Your task to perform on an android device: check the backup settings in the google photos Image 0: 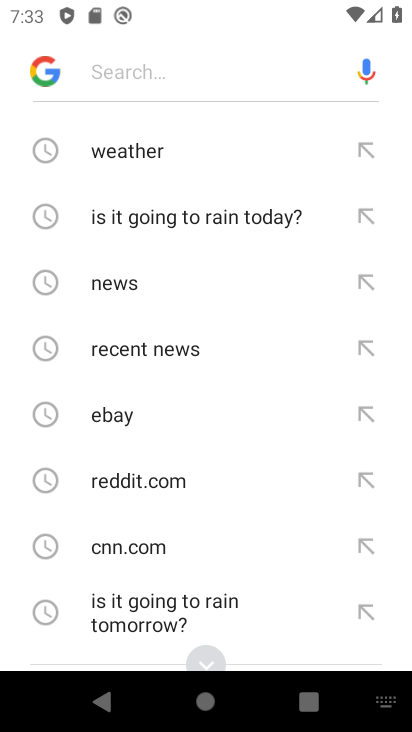
Step 0: press home button
Your task to perform on an android device: check the backup settings in the google photos Image 1: 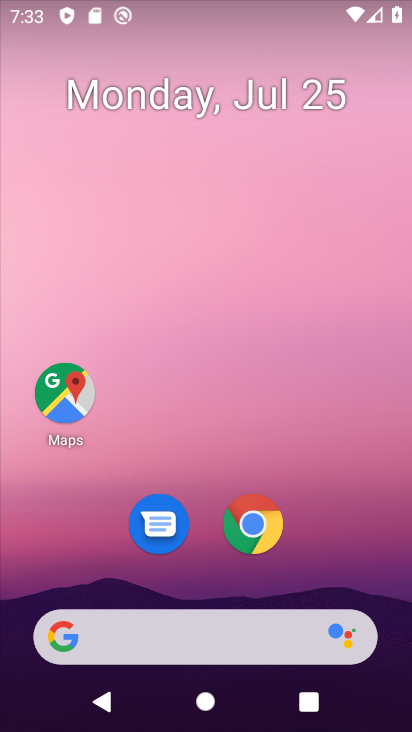
Step 1: drag from (309, 550) to (321, 18)
Your task to perform on an android device: check the backup settings in the google photos Image 2: 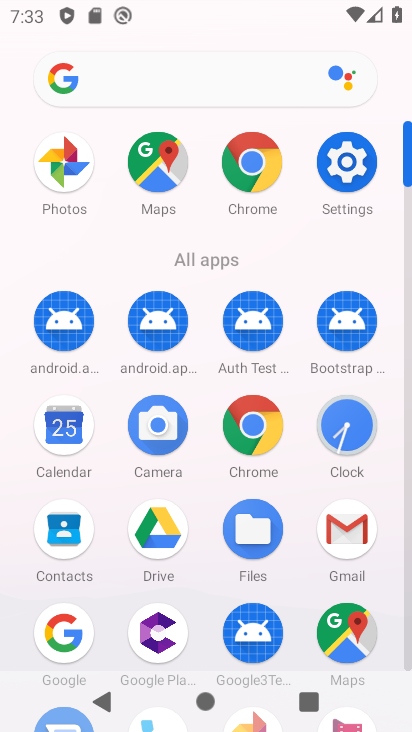
Step 2: click (71, 167)
Your task to perform on an android device: check the backup settings in the google photos Image 3: 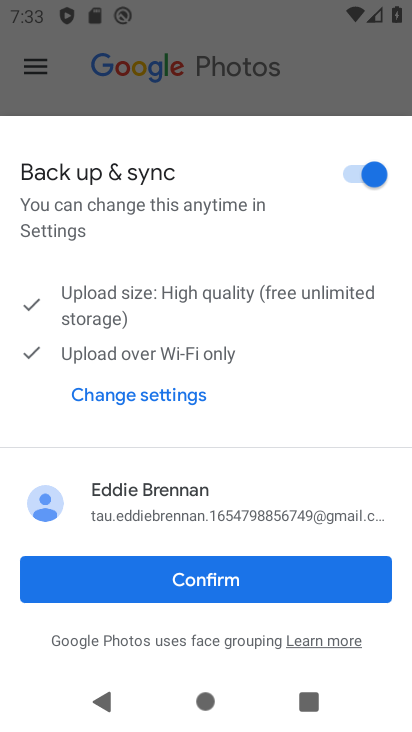
Step 3: click (263, 583)
Your task to perform on an android device: check the backup settings in the google photos Image 4: 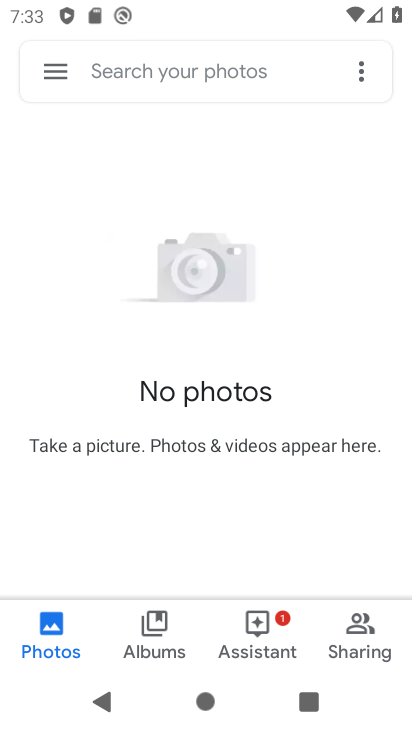
Step 4: click (57, 72)
Your task to perform on an android device: check the backup settings in the google photos Image 5: 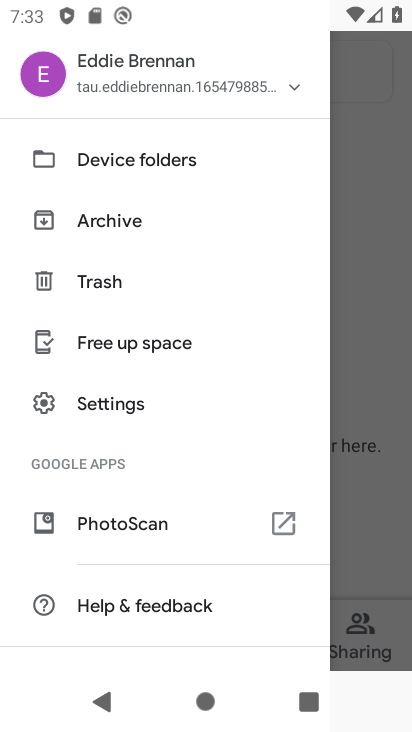
Step 5: click (120, 394)
Your task to perform on an android device: check the backup settings in the google photos Image 6: 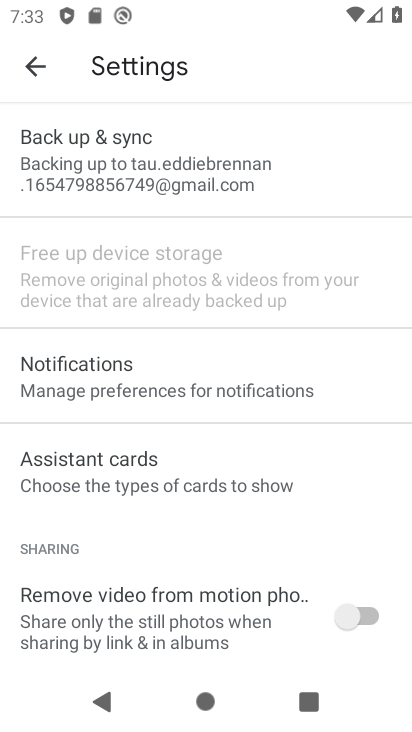
Step 6: click (161, 161)
Your task to perform on an android device: check the backup settings in the google photos Image 7: 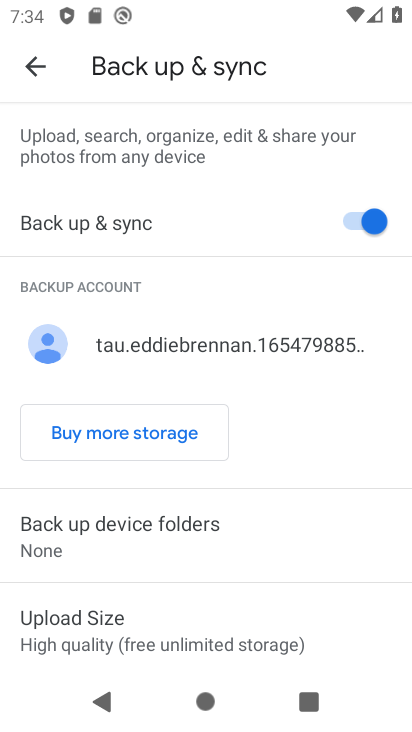
Step 7: task complete